Your task to perform on an android device: Check the weather Image 0: 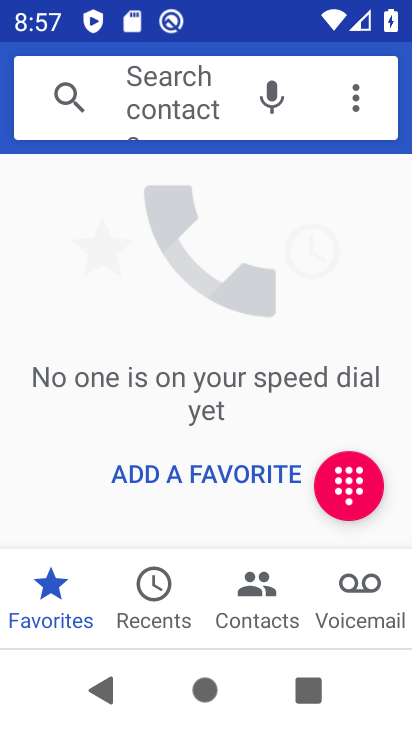
Step 0: press home button
Your task to perform on an android device: Check the weather Image 1: 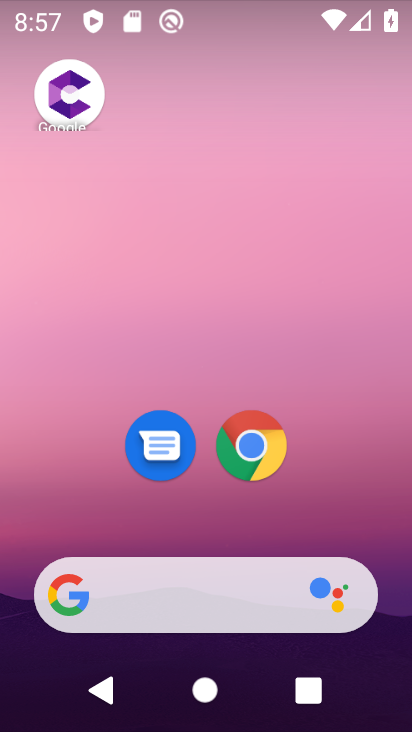
Step 1: click (196, 595)
Your task to perform on an android device: Check the weather Image 2: 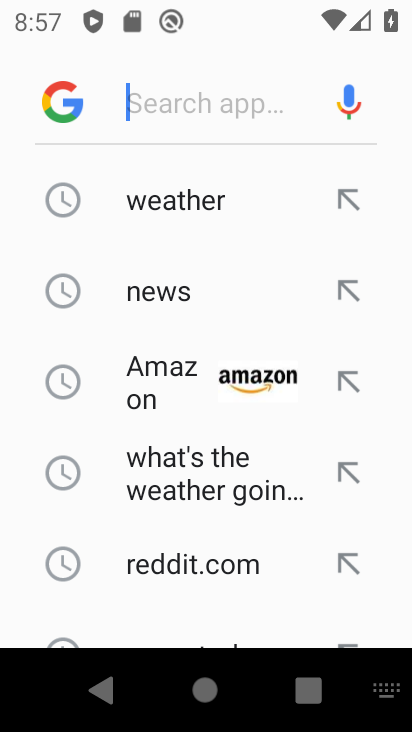
Step 2: click (145, 200)
Your task to perform on an android device: Check the weather Image 3: 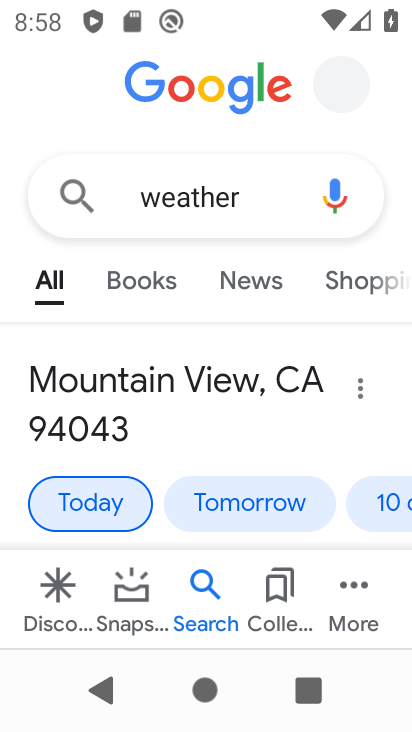
Step 3: task complete